Your task to perform on an android device: find photos in the google photos app Image 0: 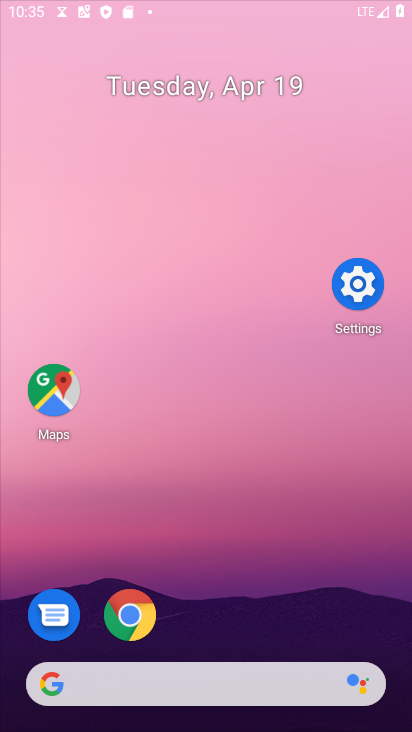
Step 0: click (241, 145)
Your task to perform on an android device: find photos in the google photos app Image 1: 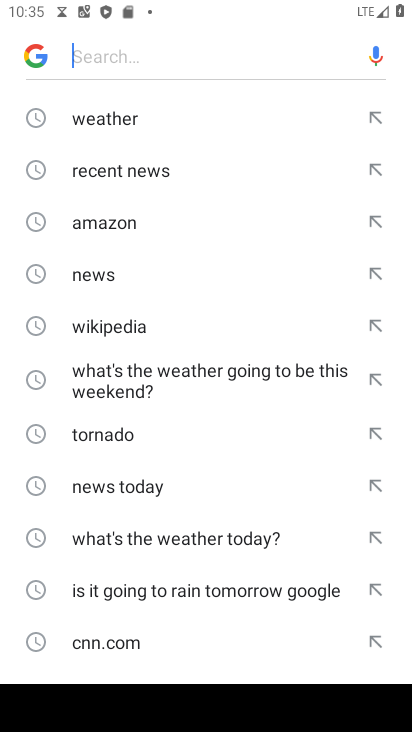
Step 1: press home button
Your task to perform on an android device: find photos in the google photos app Image 2: 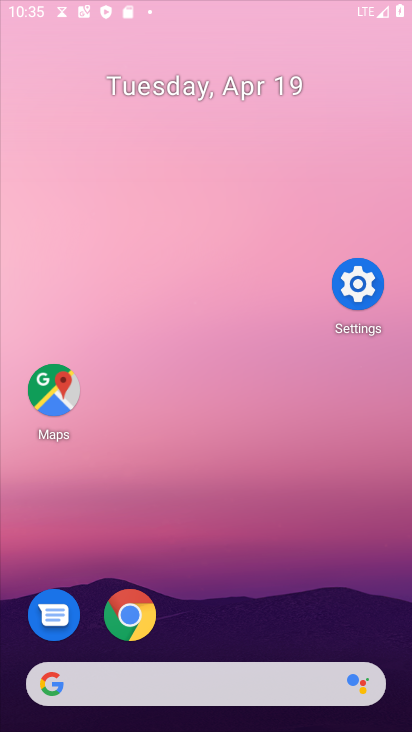
Step 2: drag from (195, 602) to (256, 206)
Your task to perform on an android device: find photos in the google photos app Image 3: 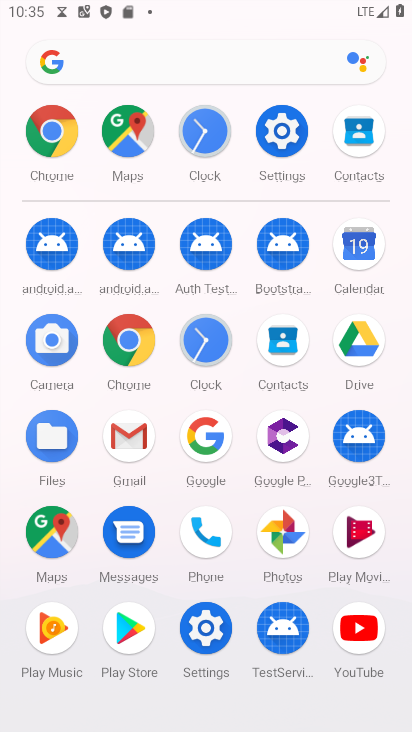
Step 3: click (285, 529)
Your task to perform on an android device: find photos in the google photos app Image 4: 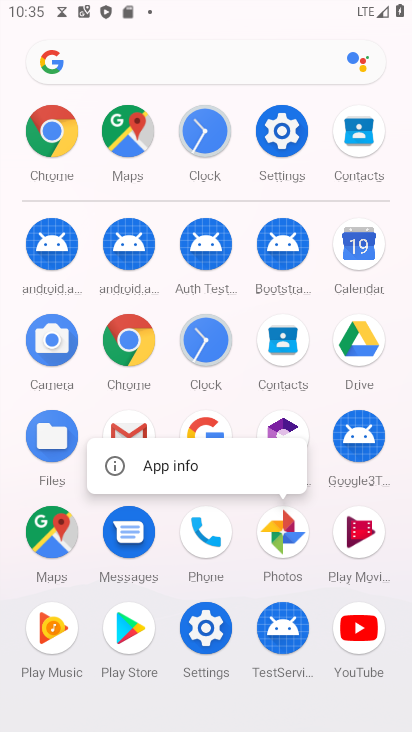
Step 4: click (167, 478)
Your task to perform on an android device: find photos in the google photos app Image 5: 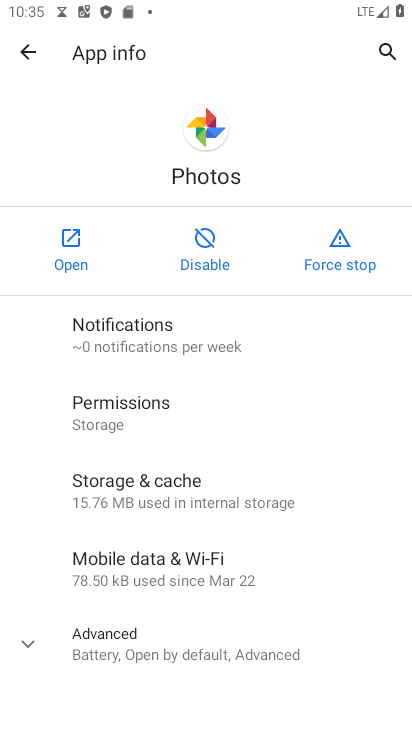
Step 5: click (70, 233)
Your task to perform on an android device: find photos in the google photos app Image 6: 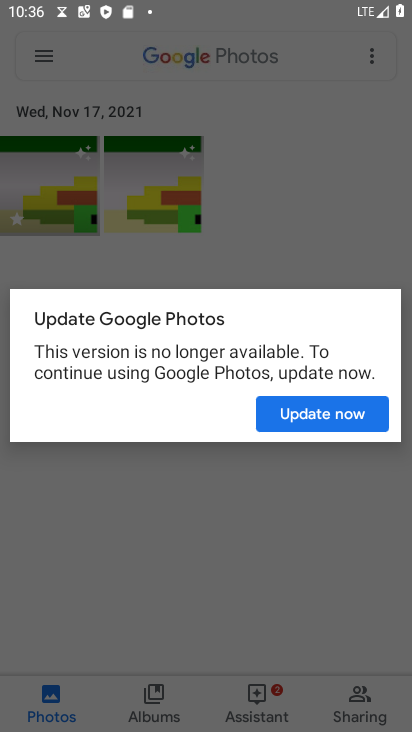
Step 6: task complete